Your task to perform on an android device: Go to network settings Image 0: 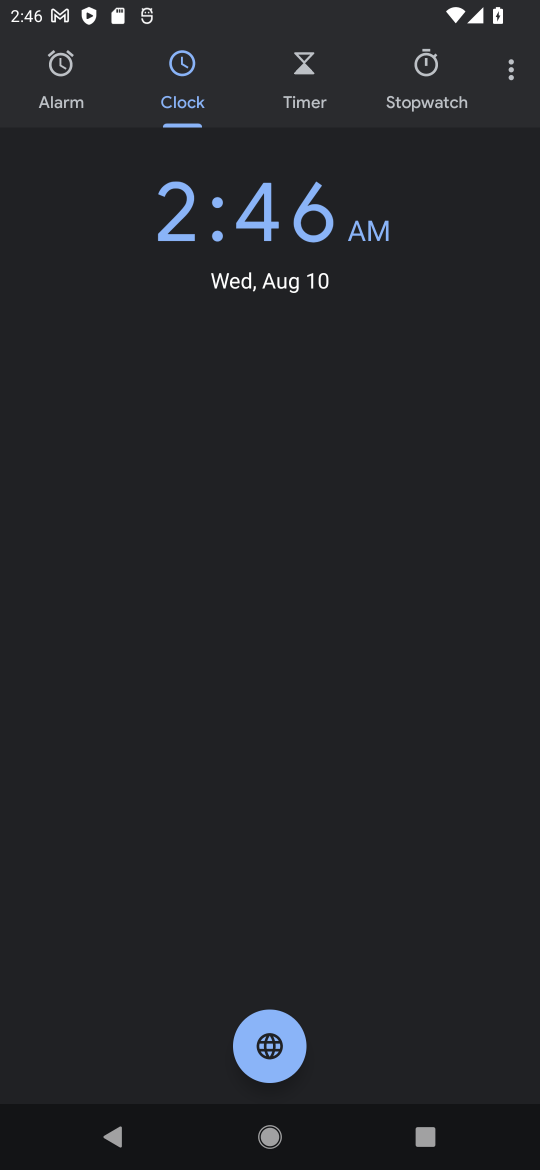
Step 0: drag from (247, 10) to (225, 1074)
Your task to perform on an android device: Go to network settings Image 1: 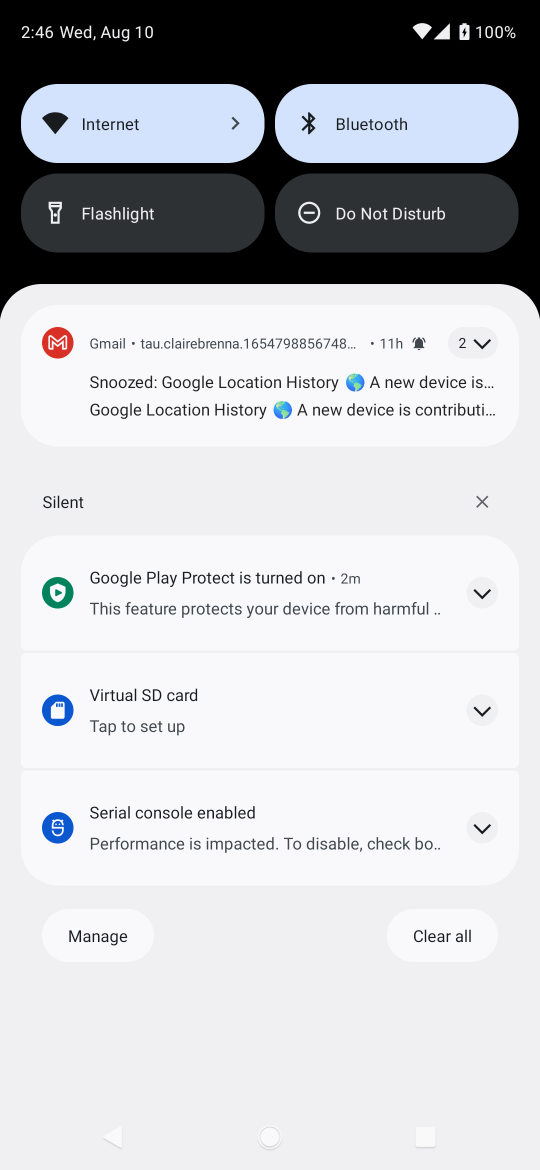
Step 1: click (245, 117)
Your task to perform on an android device: Go to network settings Image 2: 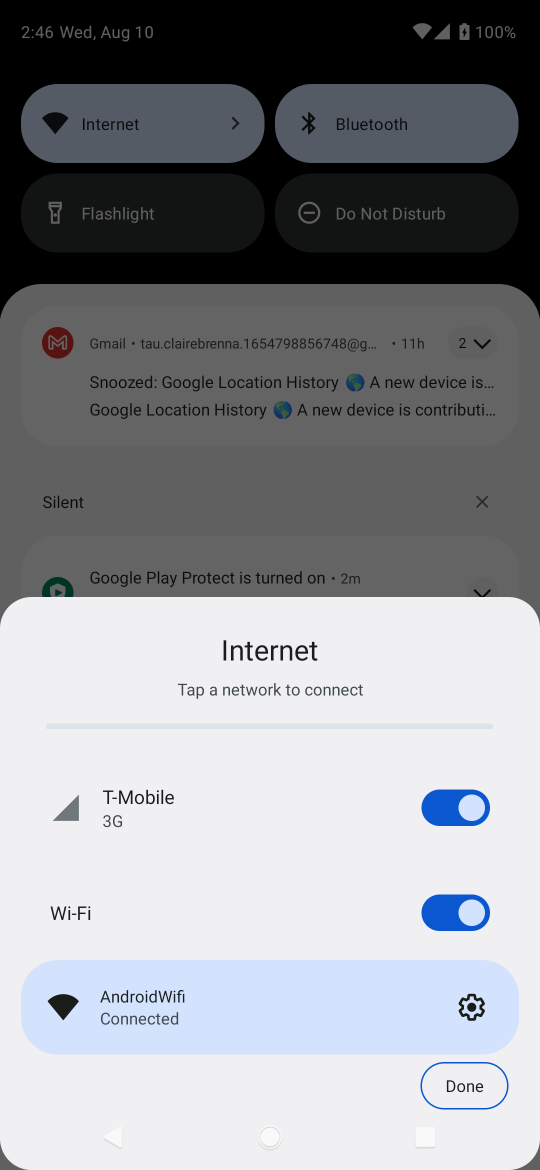
Step 2: click (478, 1007)
Your task to perform on an android device: Go to network settings Image 3: 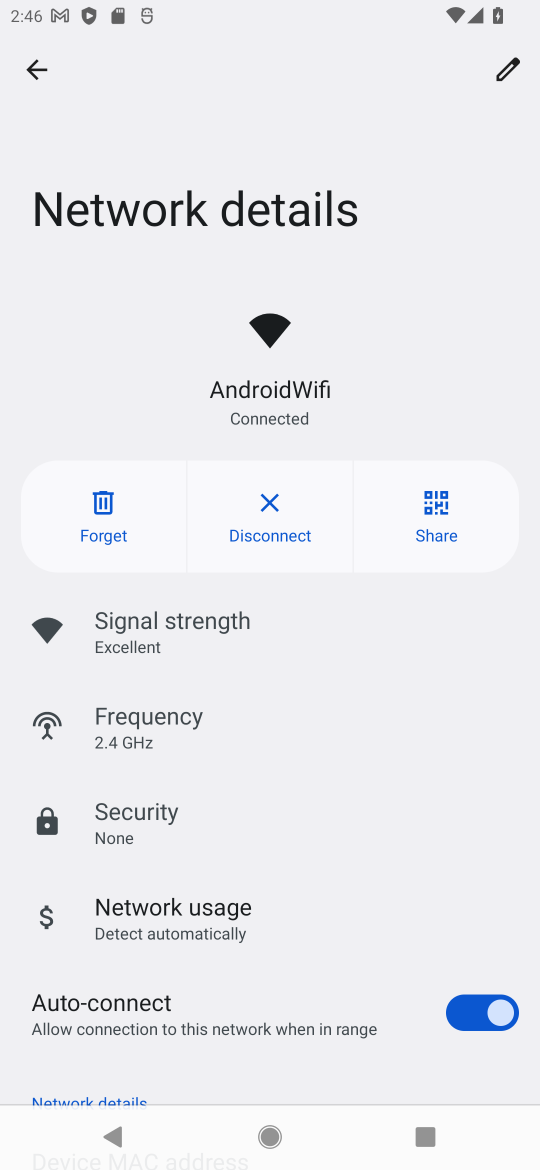
Step 3: click (39, 79)
Your task to perform on an android device: Go to network settings Image 4: 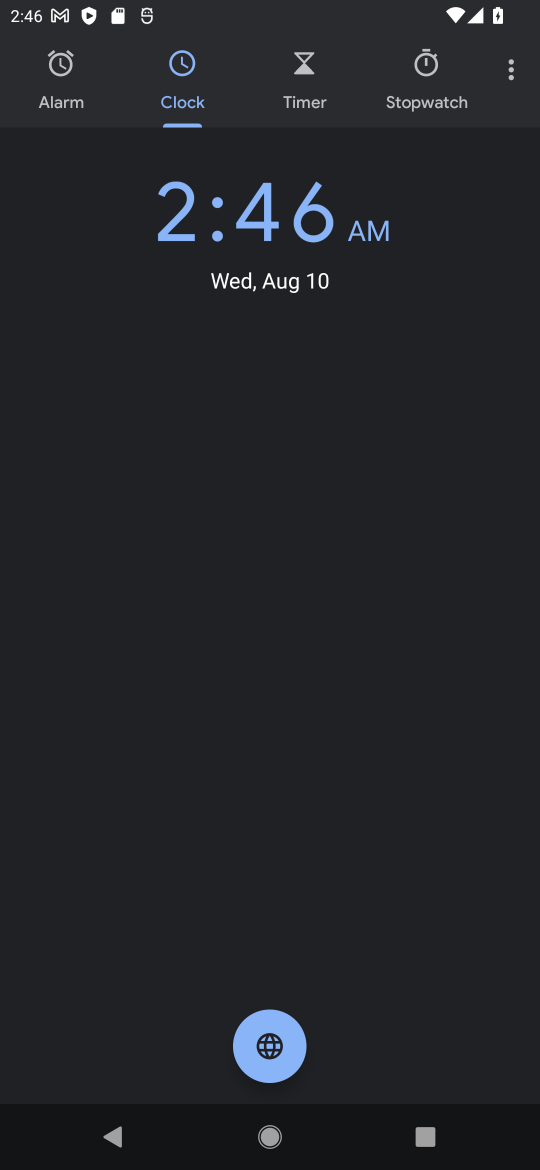
Step 4: click (277, 1150)
Your task to perform on an android device: Go to network settings Image 5: 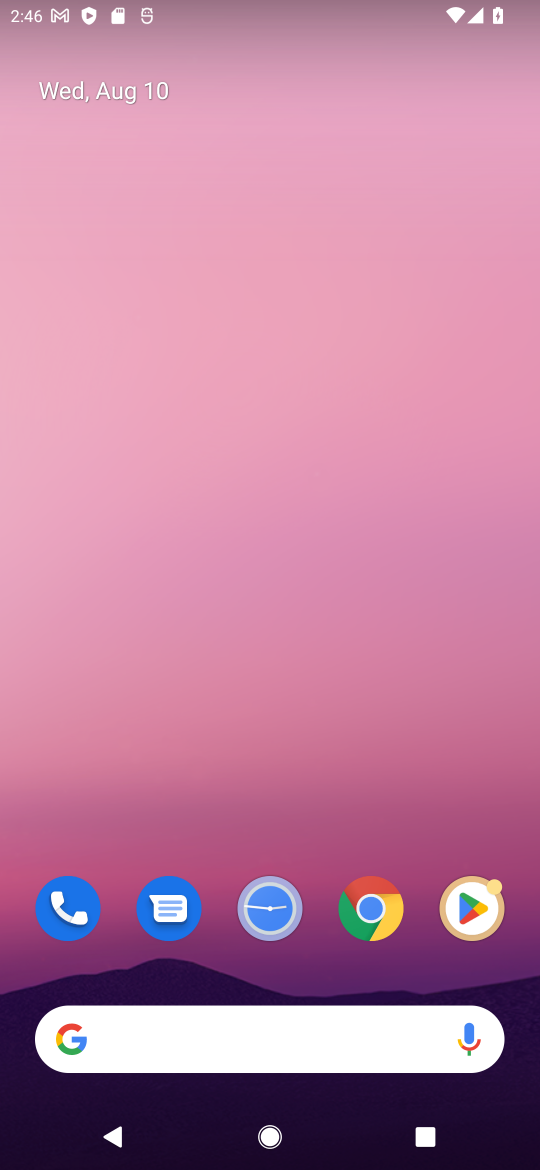
Step 5: drag from (307, 960) to (361, 96)
Your task to perform on an android device: Go to network settings Image 6: 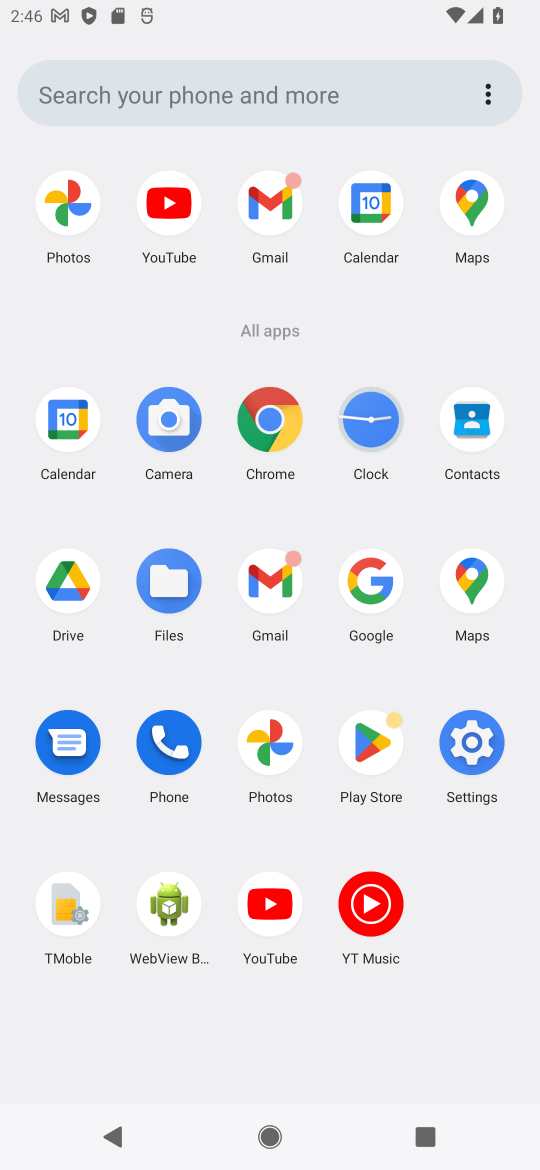
Step 6: click (471, 758)
Your task to perform on an android device: Go to network settings Image 7: 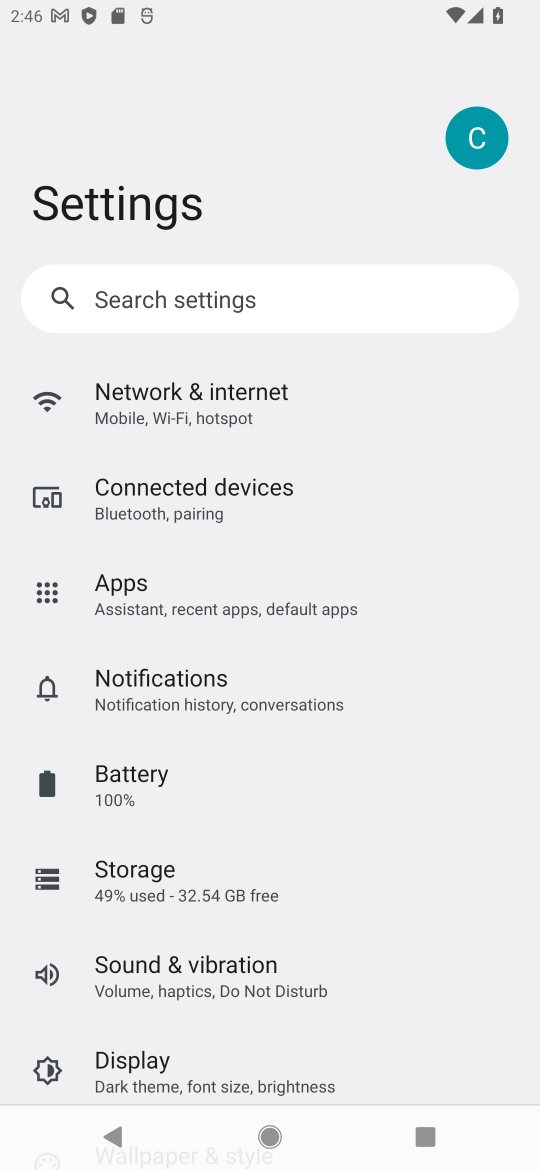
Step 7: click (192, 420)
Your task to perform on an android device: Go to network settings Image 8: 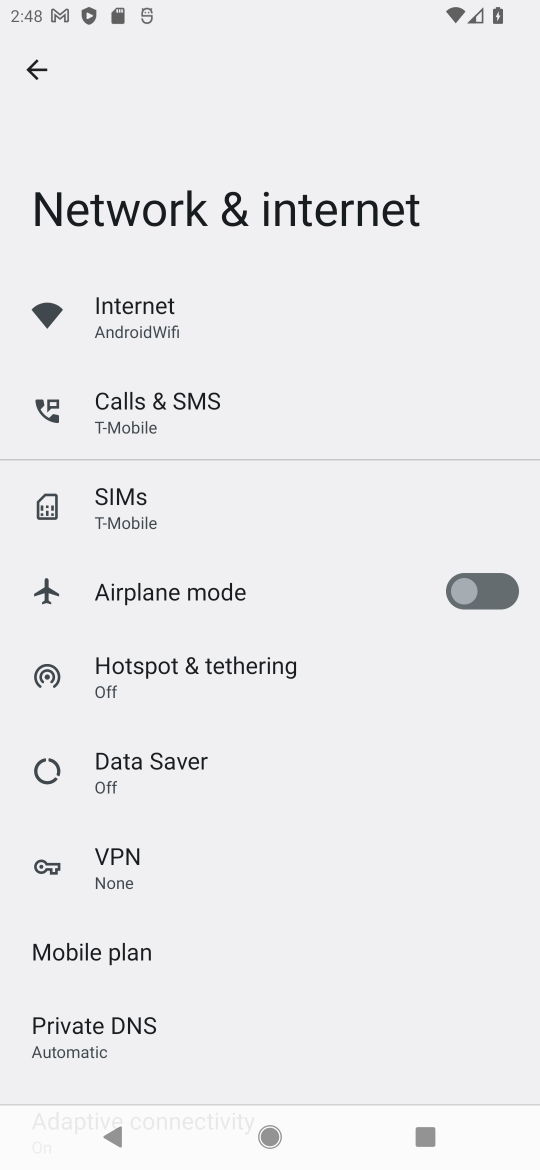
Step 8: task complete